Your task to perform on an android device: Open Google Maps and go to "Timeline" Image 0: 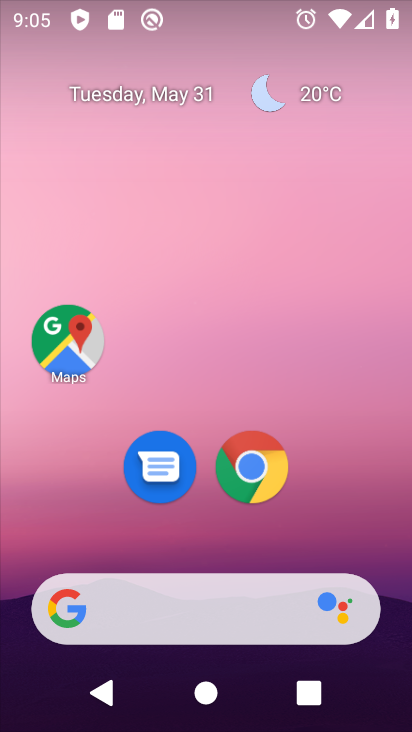
Step 0: drag from (190, 487) to (25, 9)
Your task to perform on an android device: Open Google Maps and go to "Timeline" Image 1: 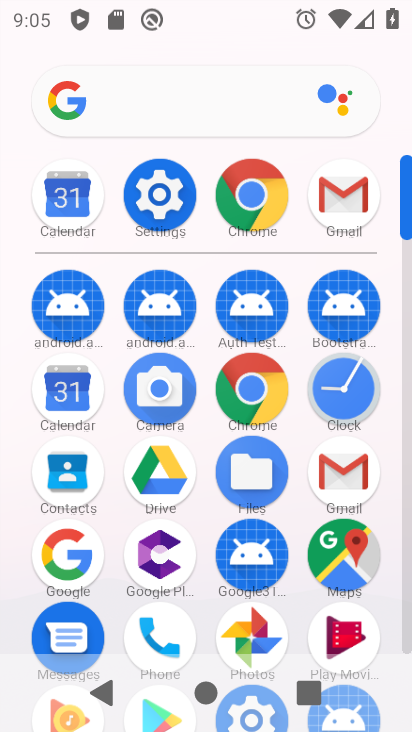
Step 1: click (340, 556)
Your task to perform on an android device: Open Google Maps and go to "Timeline" Image 2: 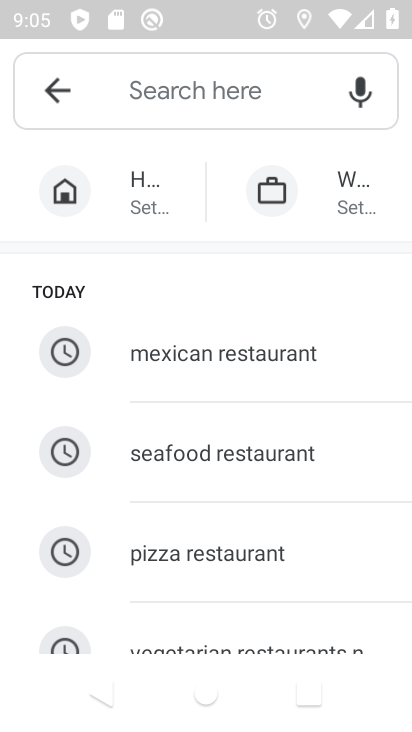
Step 2: click (54, 94)
Your task to perform on an android device: Open Google Maps and go to "Timeline" Image 3: 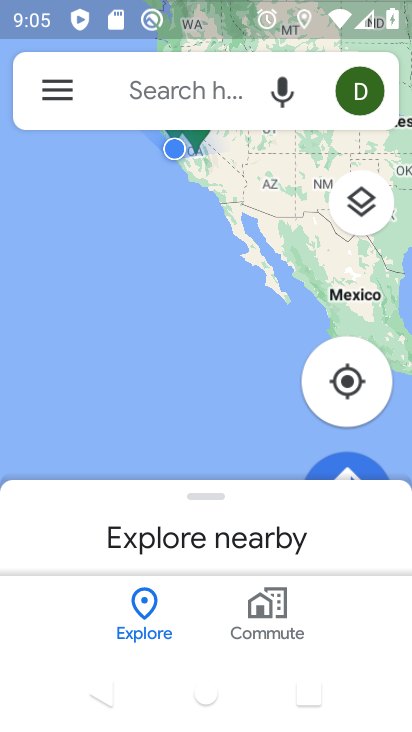
Step 3: click (53, 90)
Your task to perform on an android device: Open Google Maps and go to "Timeline" Image 4: 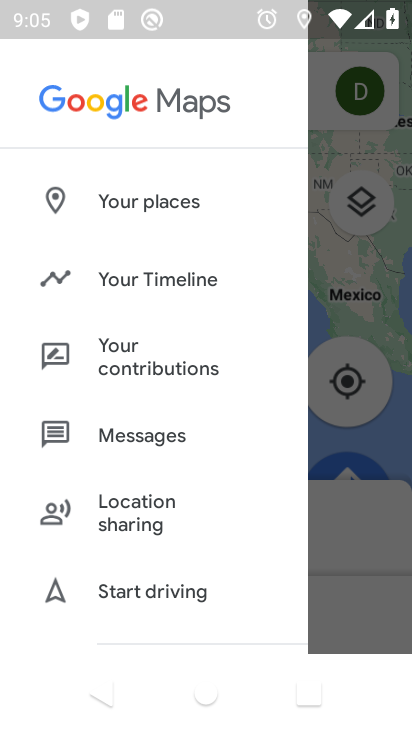
Step 4: click (152, 268)
Your task to perform on an android device: Open Google Maps and go to "Timeline" Image 5: 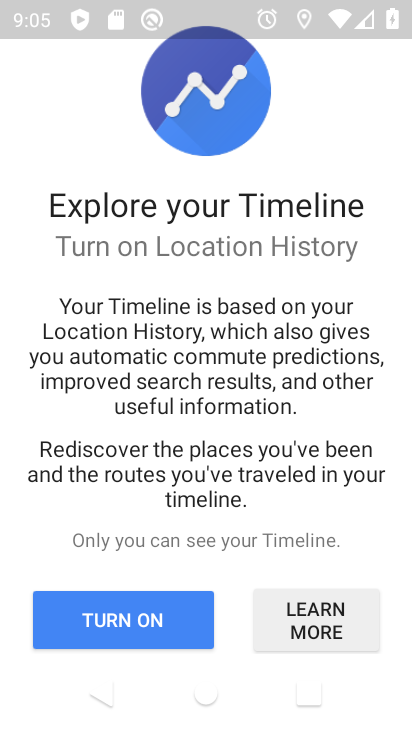
Step 5: click (137, 621)
Your task to perform on an android device: Open Google Maps and go to "Timeline" Image 6: 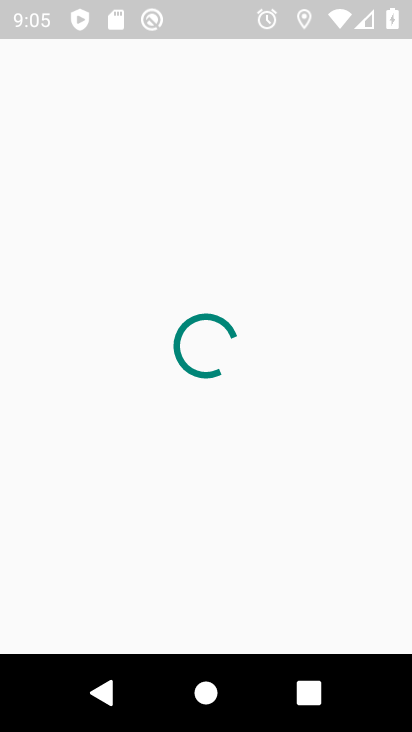
Step 6: drag from (209, 544) to (314, 163)
Your task to perform on an android device: Open Google Maps and go to "Timeline" Image 7: 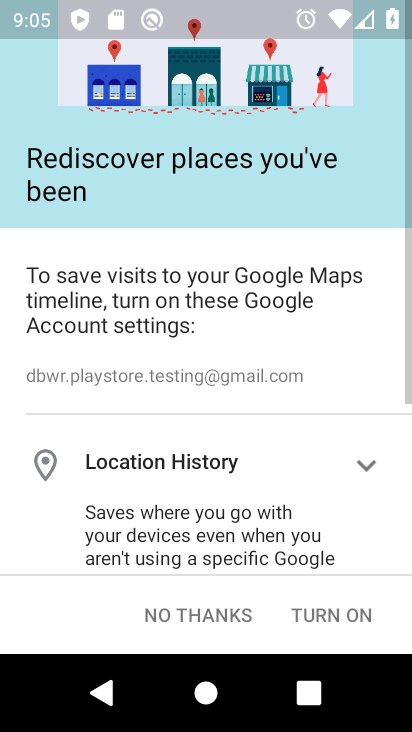
Step 7: drag from (285, 528) to (320, 258)
Your task to perform on an android device: Open Google Maps and go to "Timeline" Image 8: 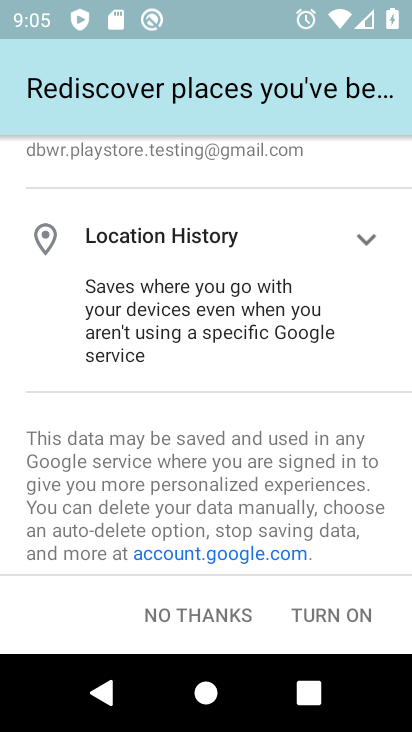
Step 8: drag from (233, 494) to (290, 262)
Your task to perform on an android device: Open Google Maps and go to "Timeline" Image 9: 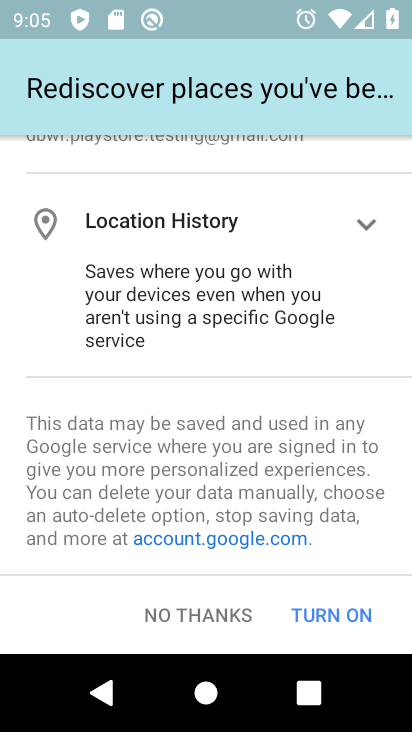
Step 9: click (195, 609)
Your task to perform on an android device: Open Google Maps and go to "Timeline" Image 10: 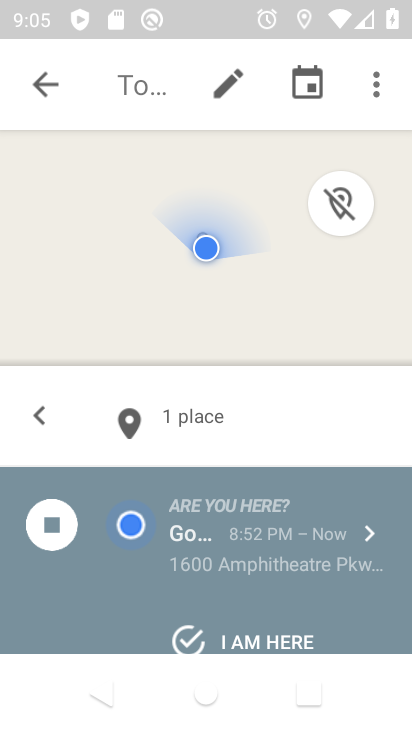
Step 10: drag from (180, 535) to (177, 166)
Your task to perform on an android device: Open Google Maps and go to "Timeline" Image 11: 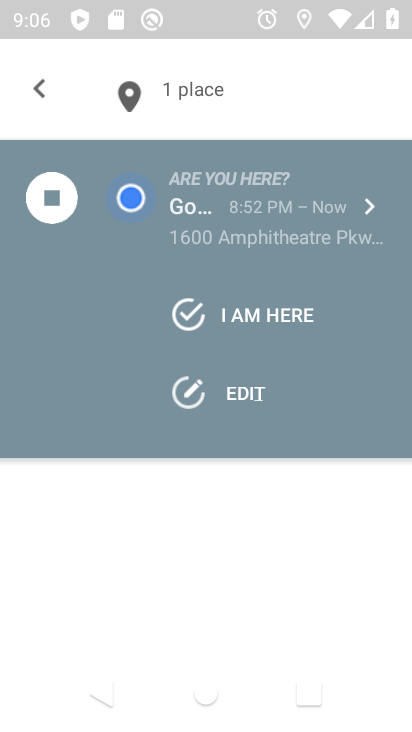
Step 11: click (31, 97)
Your task to perform on an android device: Open Google Maps and go to "Timeline" Image 12: 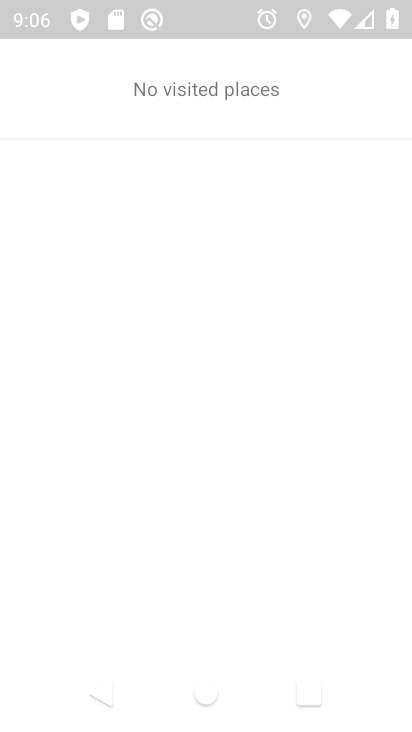
Step 12: drag from (218, 321) to (262, 570)
Your task to perform on an android device: Open Google Maps and go to "Timeline" Image 13: 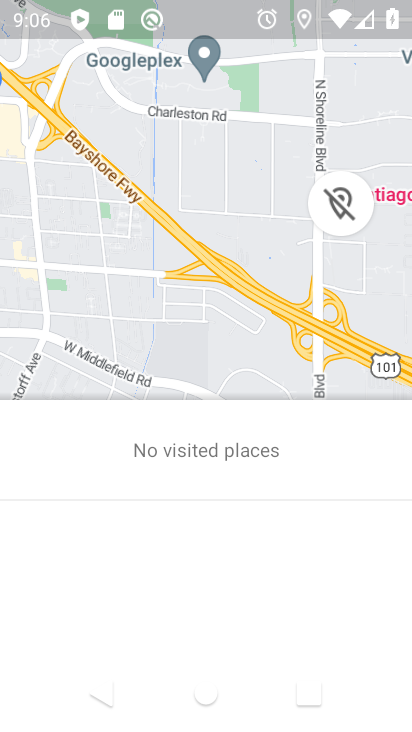
Step 13: drag from (296, 238) to (296, 142)
Your task to perform on an android device: Open Google Maps and go to "Timeline" Image 14: 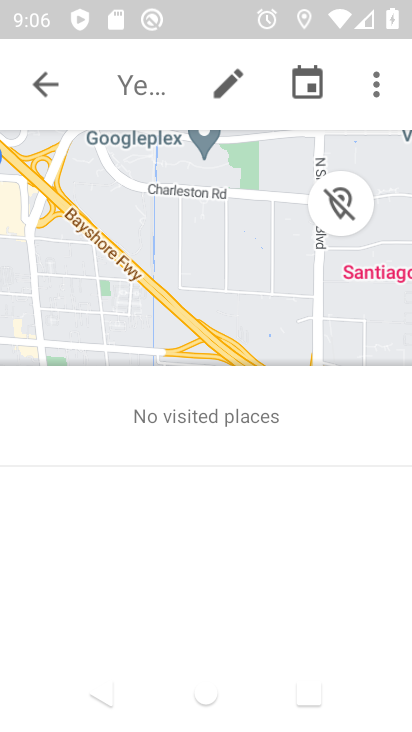
Step 14: drag from (276, 544) to (283, 293)
Your task to perform on an android device: Open Google Maps and go to "Timeline" Image 15: 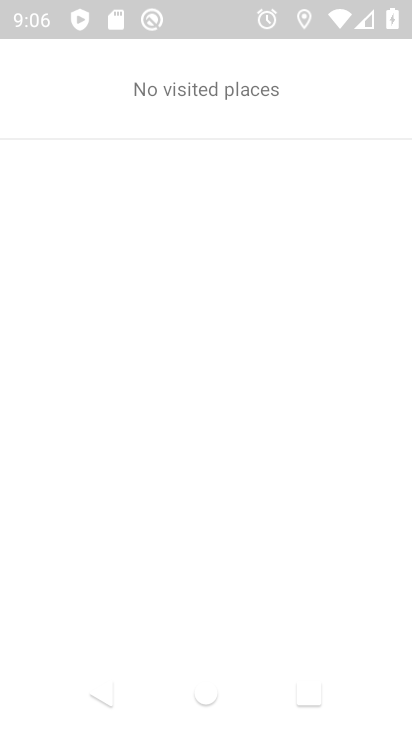
Step 15: drag from (108, 137) to (251, 625)
Your task to perform on an android device: Open Google Maps and go to "Timeline" Image 16: 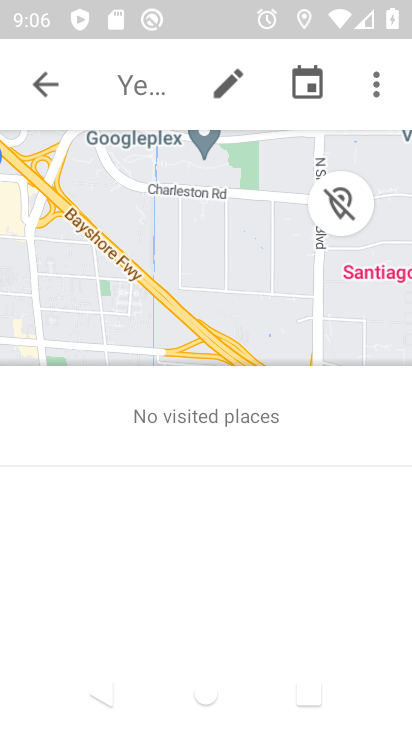
Step 16: click (42, 82)
Your task to perform on an android device: Open Google Maps and go to "Timeline" Image 17: 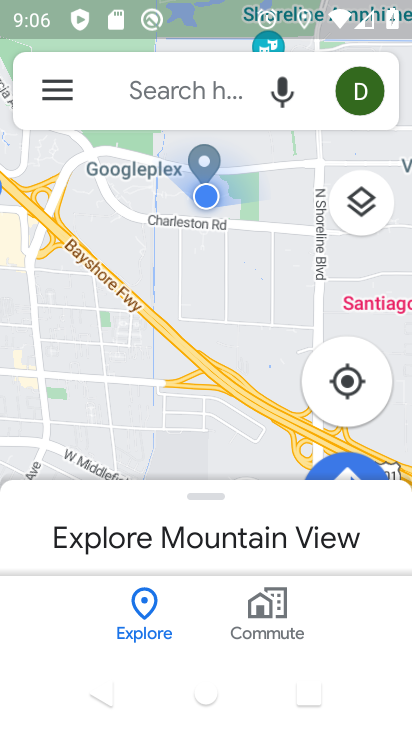
Step 17: drag from (191, 538) to (261, 141)
Your task to perform on an android device: Open Google Maps and go to "Timeline" Image 18: 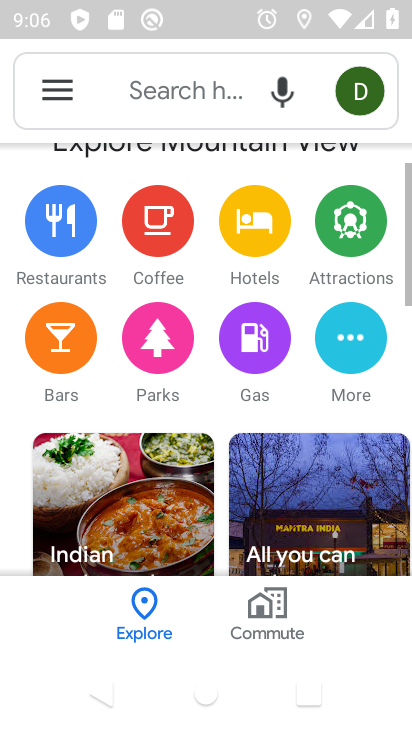
Step 18: click (57, 101)
Your task to perform on an android device: Open Google Maps and go to "Timeline" Image 19: 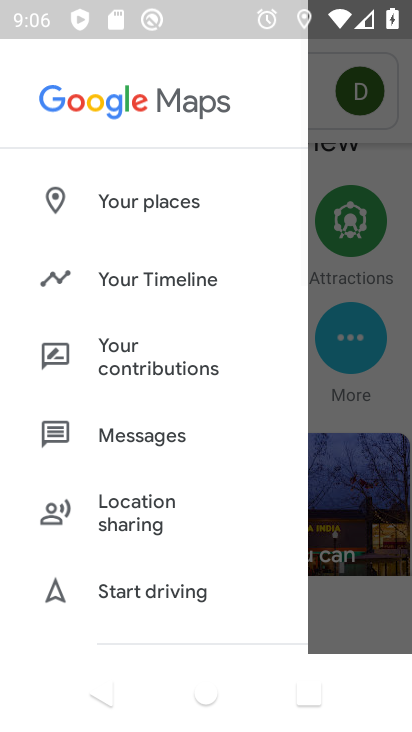
Step 19: click (136, 276)
Your task to perform on an android device: Open Google Maps and go to "Timeline" Image 20: 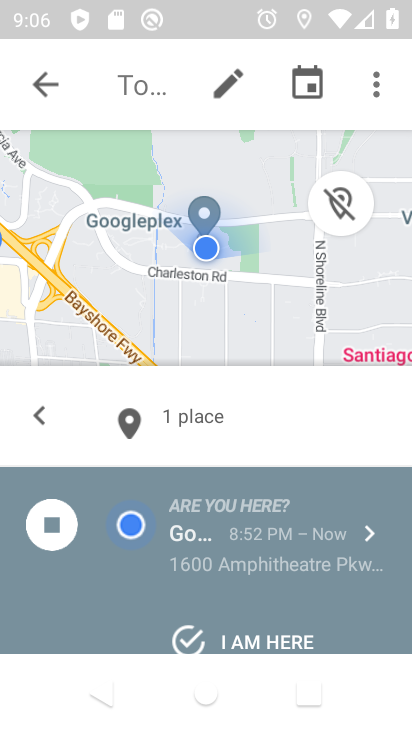
Step 20: task complete